Your task to perform on an android device: What's the weather going to be tomorrow? Image 0: 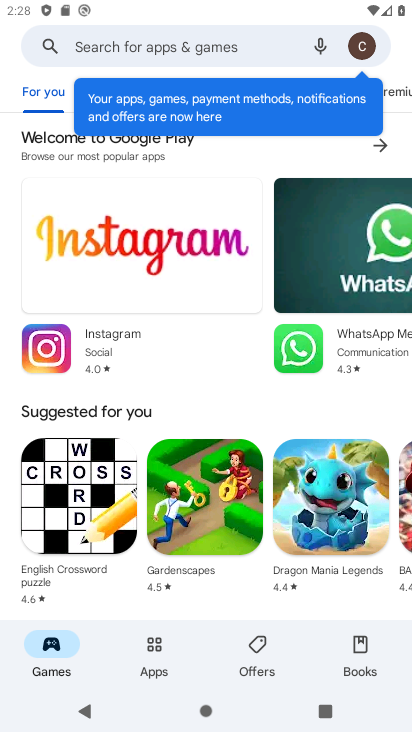
Step 0: press home button
Your task to perform on an android device: What's the weather going to be tomorrow? Image 1: 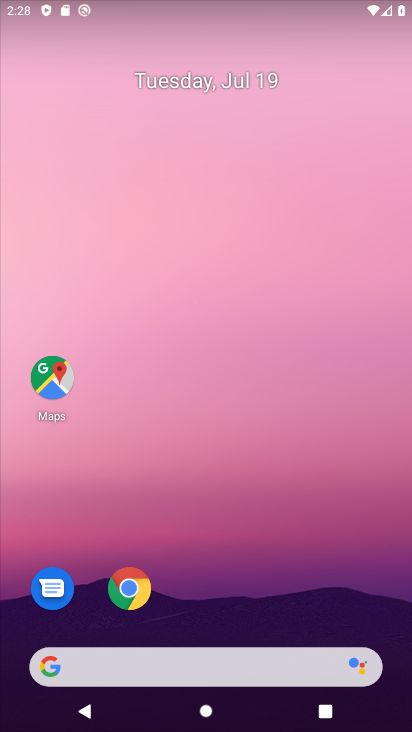
Step 1: click (145, 666)
Your task to perform on an android device: What's the weather going to be tomorrow? Image 2: 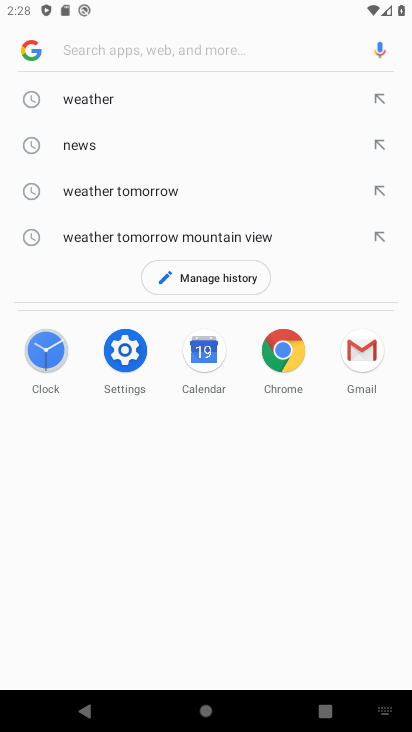
Step 2: click (77, 100)
Your task to perform on an android device: What's the weather going to be tomorrow? Image 3: 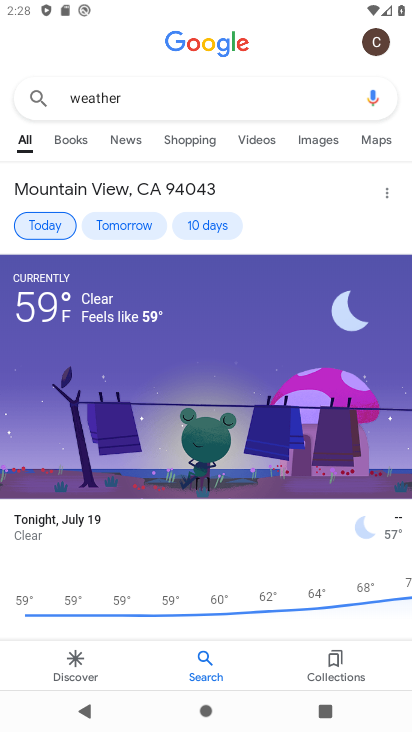
Step 3: click (120, 233)
Your task to perform on an android device: What's the weather going to be tomorrow? Image 4: 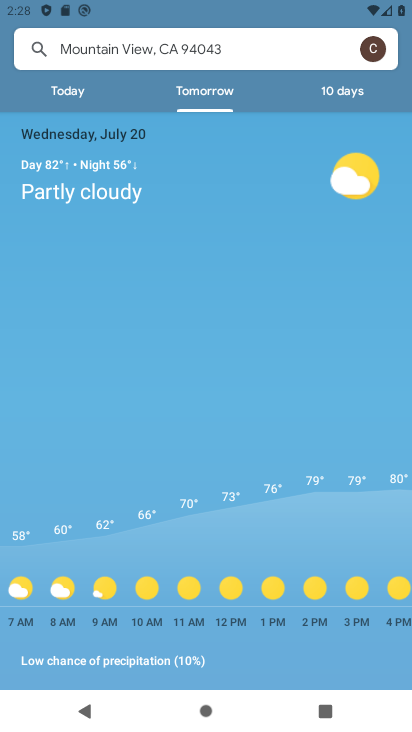
Step 4: task complete